Your task to perform on an android device: make emails show in primary in the gmail app Image 0: 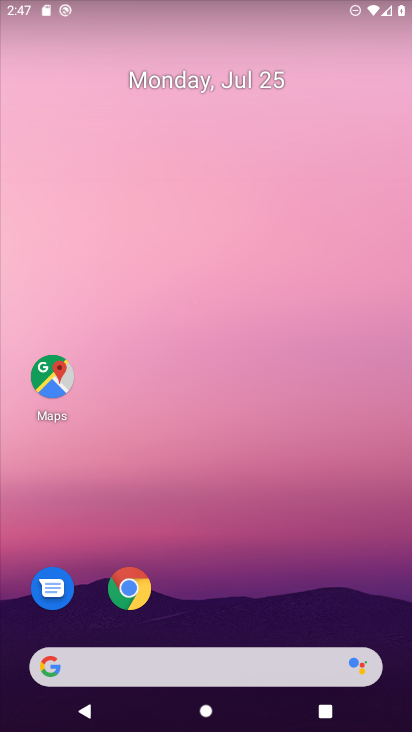
Step 0: drag from (225, 627) to (261, 185)
Your task to perform on an android device: make emails show in primary in the gmail app Image 1: 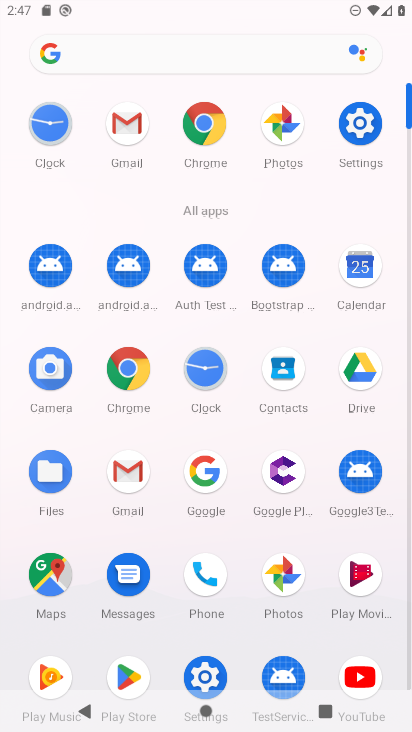
Step 1: click (143, 467)
Your task to perform on an android device: make emails show in primary in the gmail app Image 2: 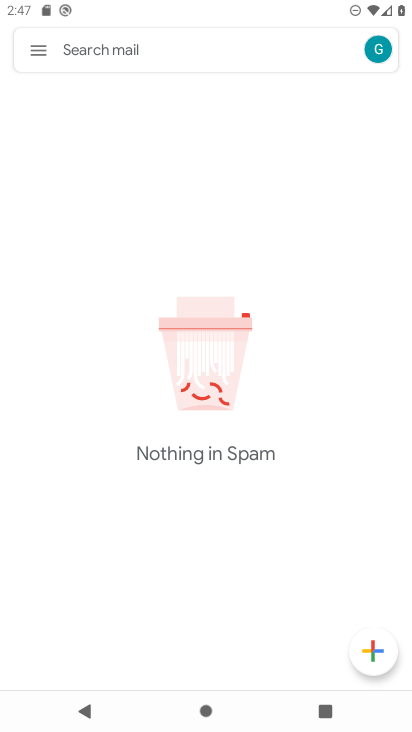
Step 2: click (35, 50)
Your task to perform on an android device: make emails show in primary in the gmail app Image 3: 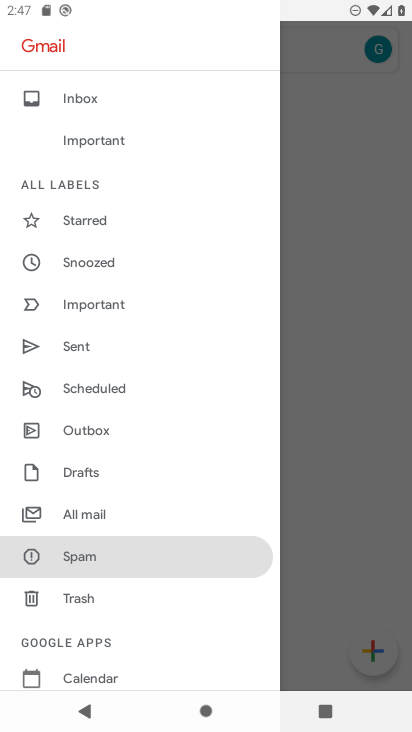
Step 3: drag from (93, 627) to (93, 267)
Your task to perform on an android device: make emails show in primary in the gmail app Image 4: 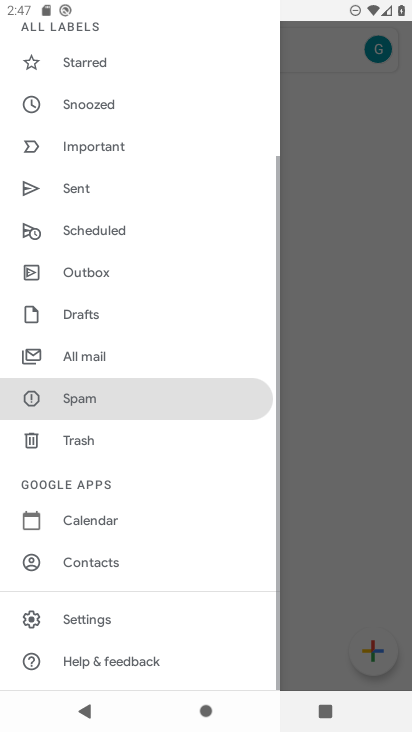
Step 4: click (73, 615)
Your task to perform on an android device: make emails show in primary in the gmail app Image 5: 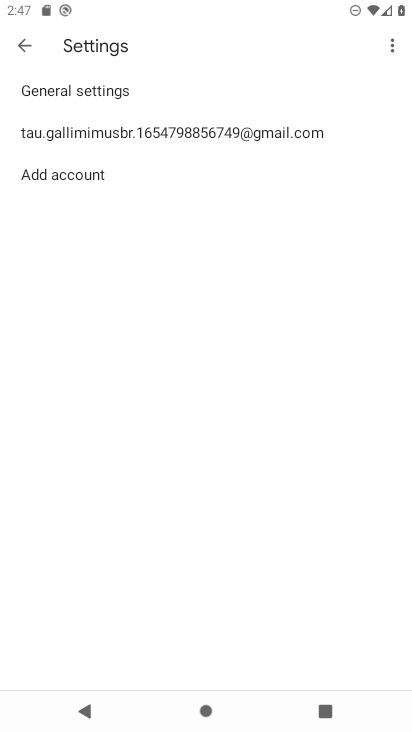
Step 5: click (78, 118)
Your task to perform on an android device: make emails show in primary in the gmail app Image 6: 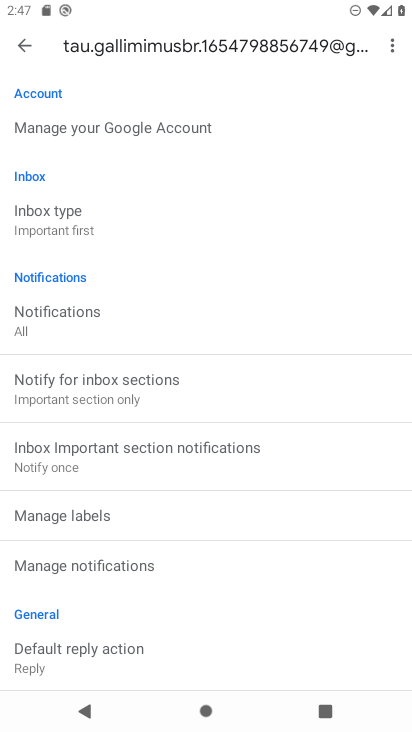
Step 6: task complete